Your task to perform on an android device: install app "Cash App" Image 0: 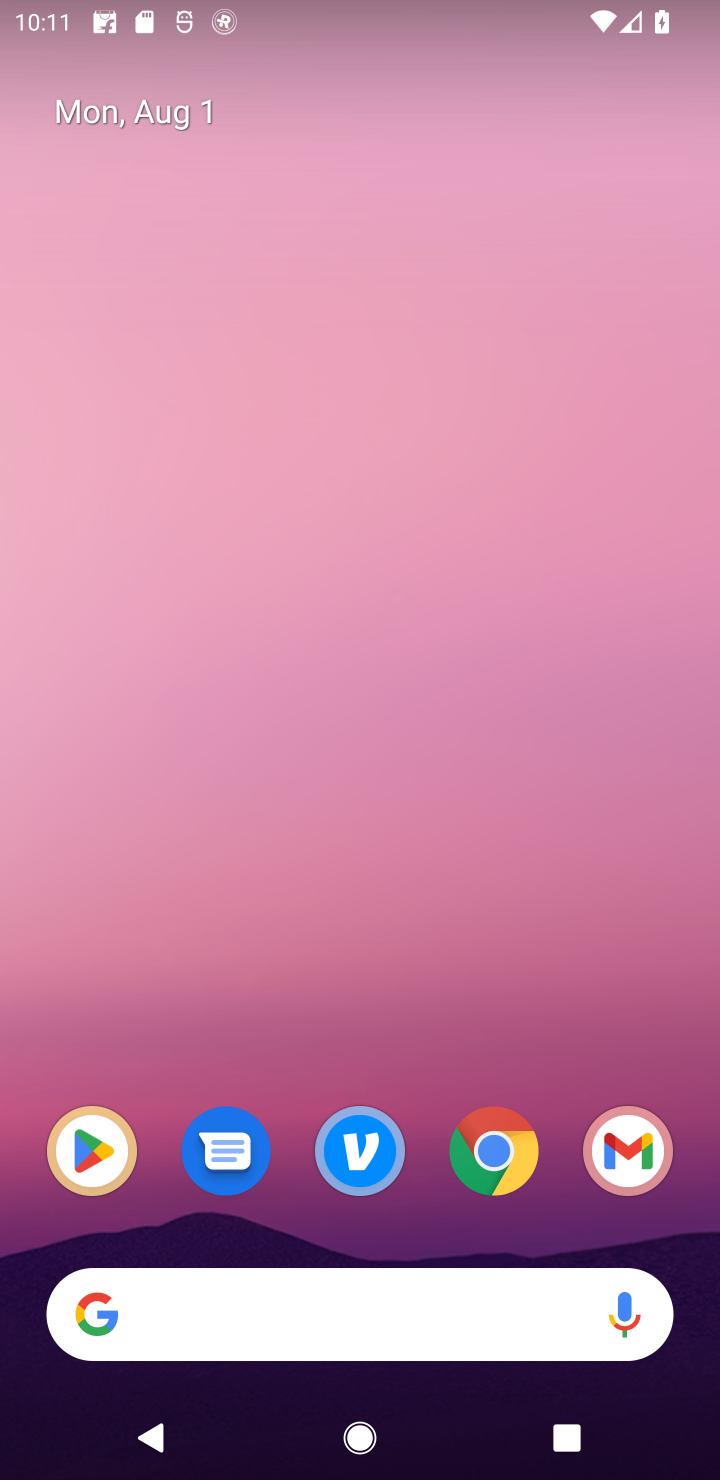
Step 0: click (96, 1141)
Your task to perform on an android device: install app "Cash App" Image 1: 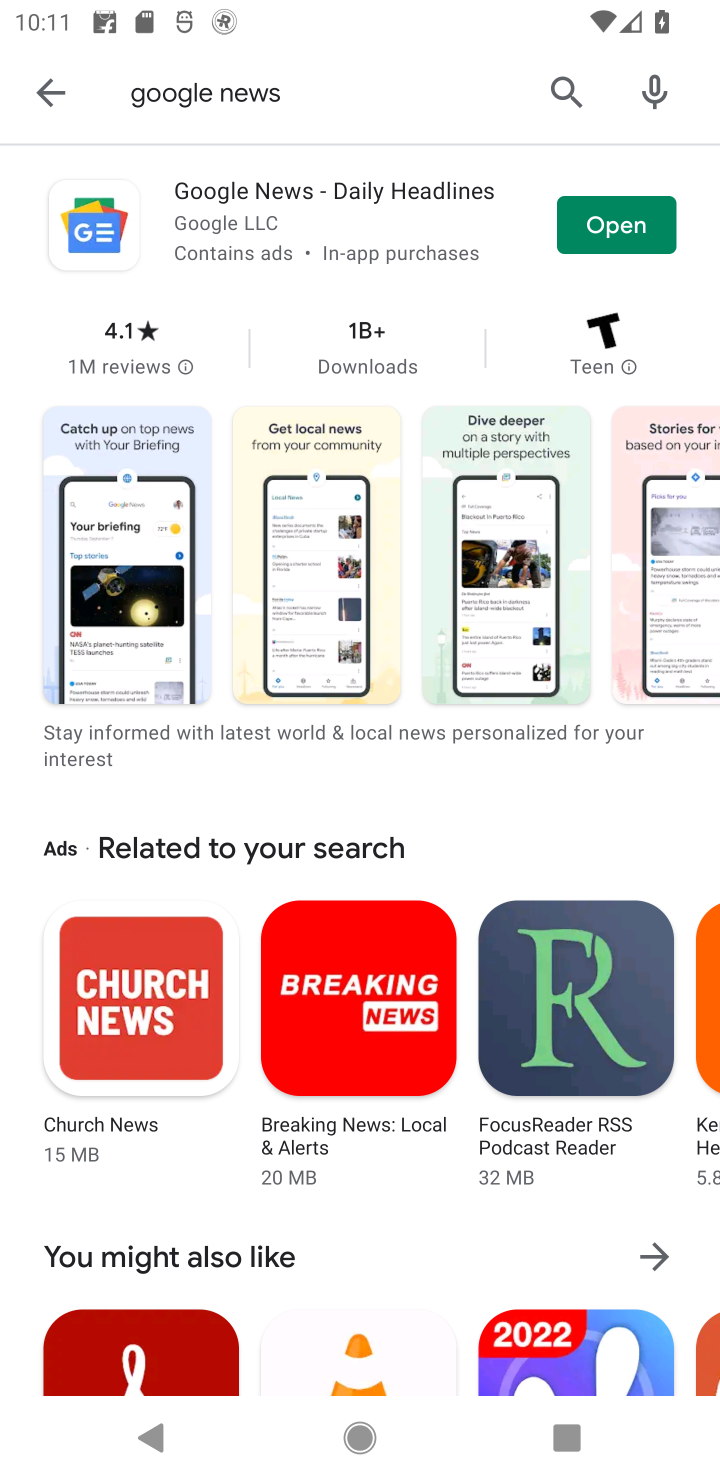
Step 1: click (549, 84)
Your task to perform on an android device: install app "Cash App" Image 2: 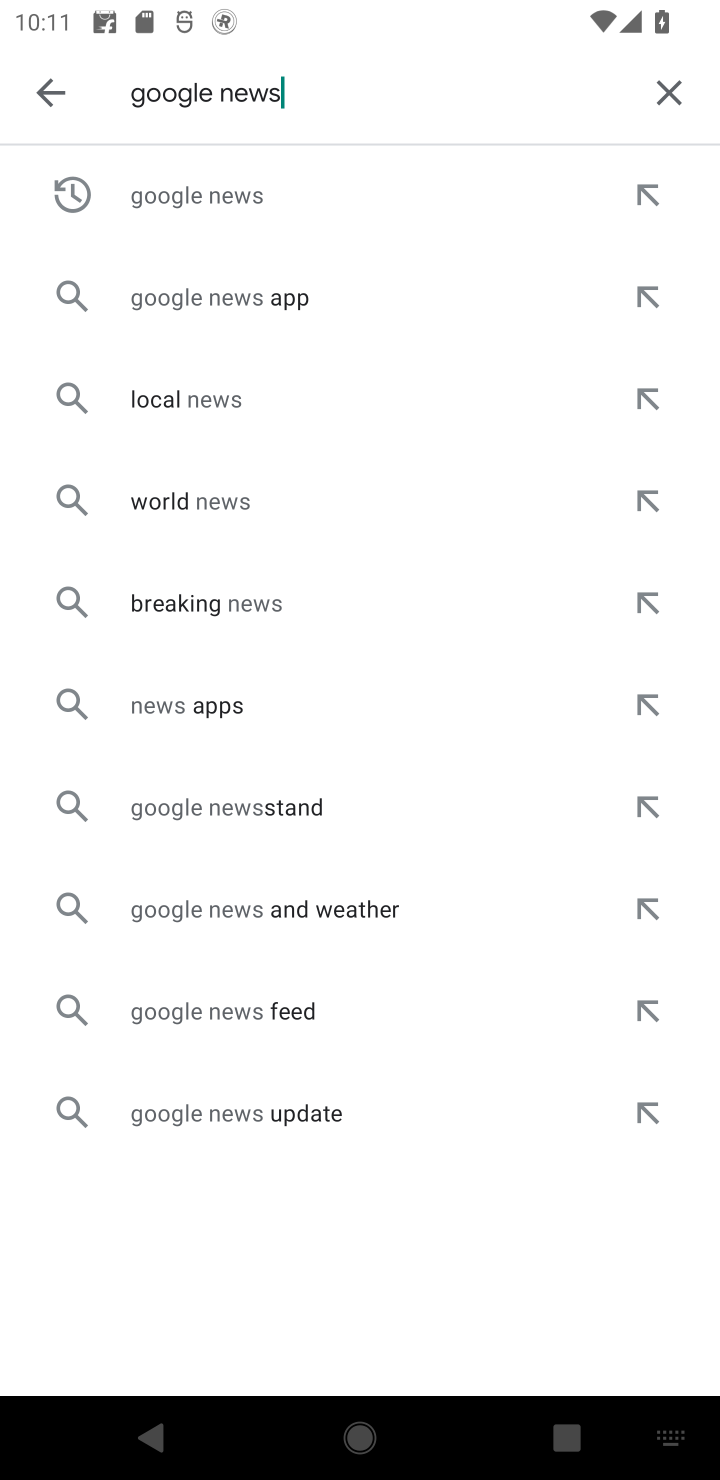
Step 2: click (666, 98)
Your task to perform on an android device: install app "Cash App" Image 3: 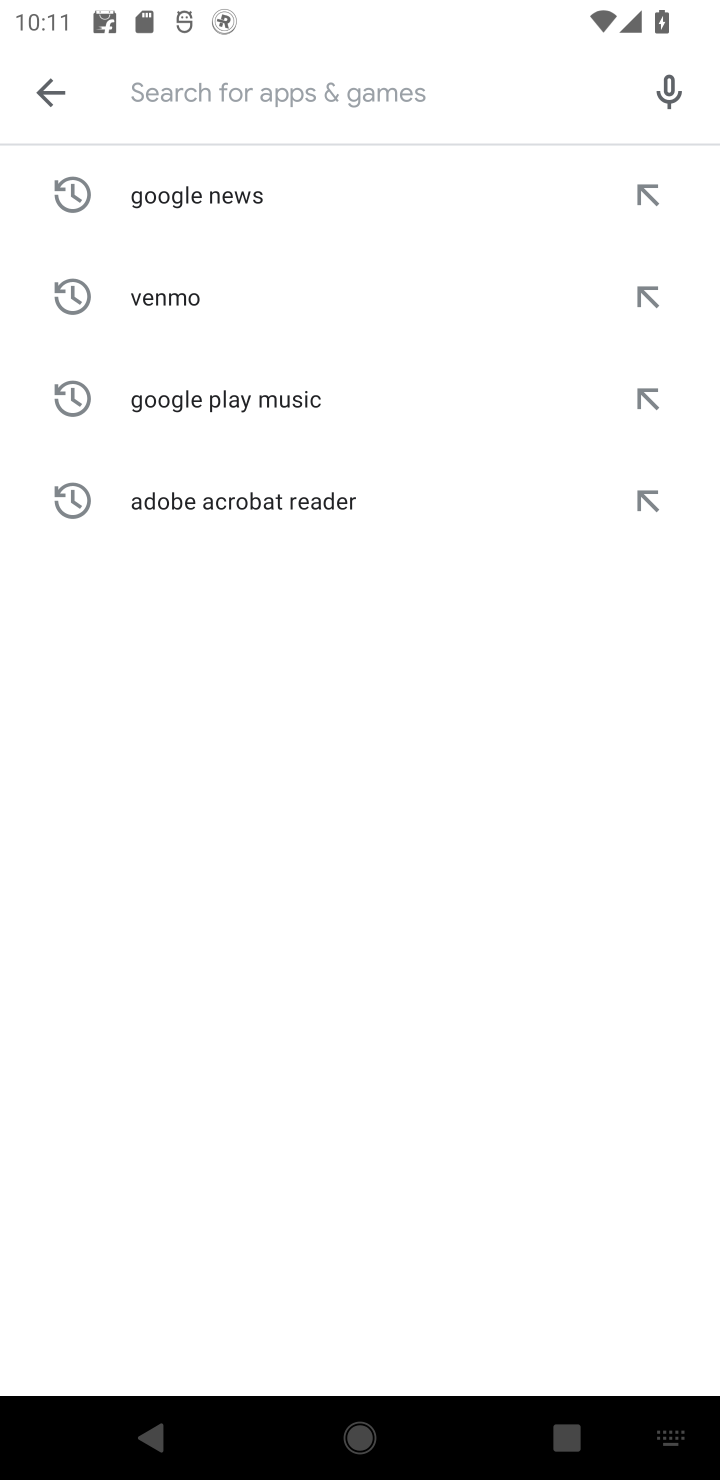
Step 3: type "Cash App"
Your task to perform on an android device: install app "Cash App" Image 4: 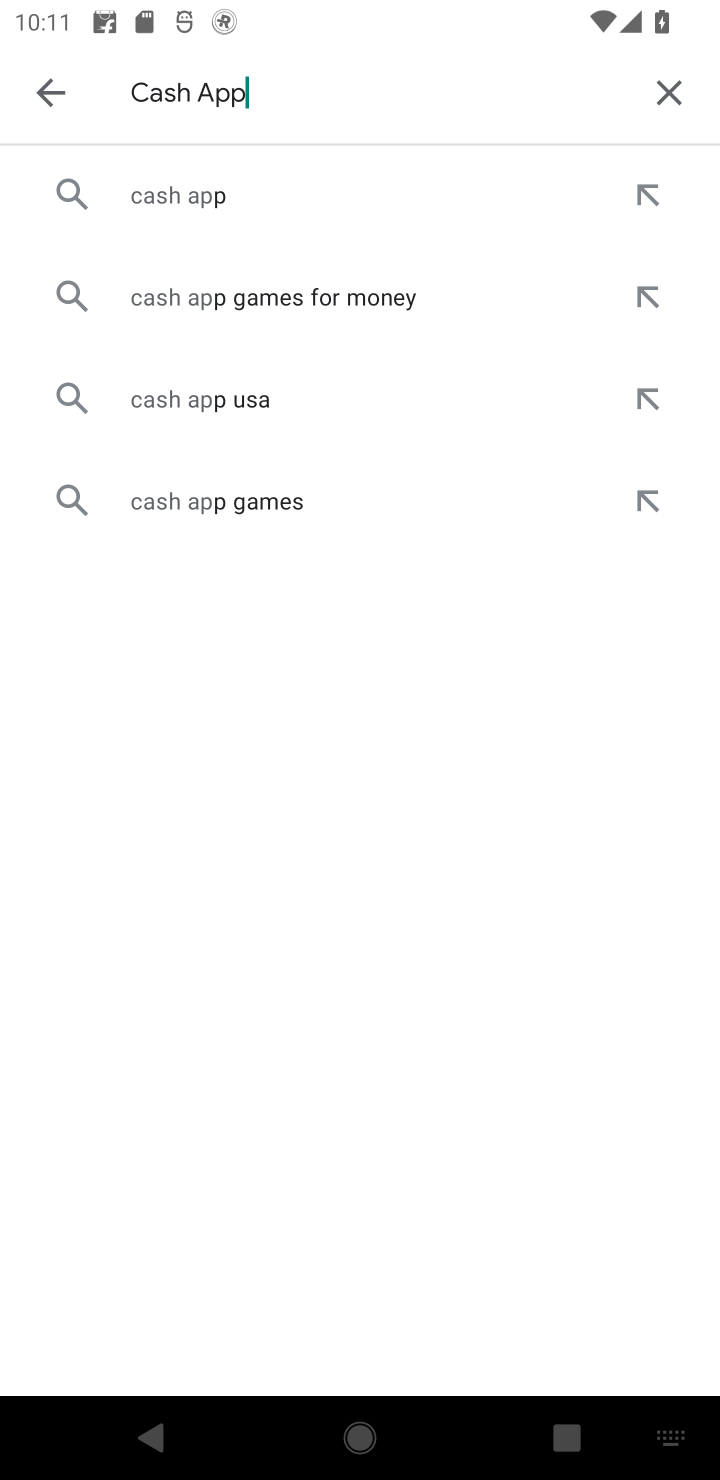
Step 4: type ""
Your task to perform on an android device: install app "Cash App" Image 5: 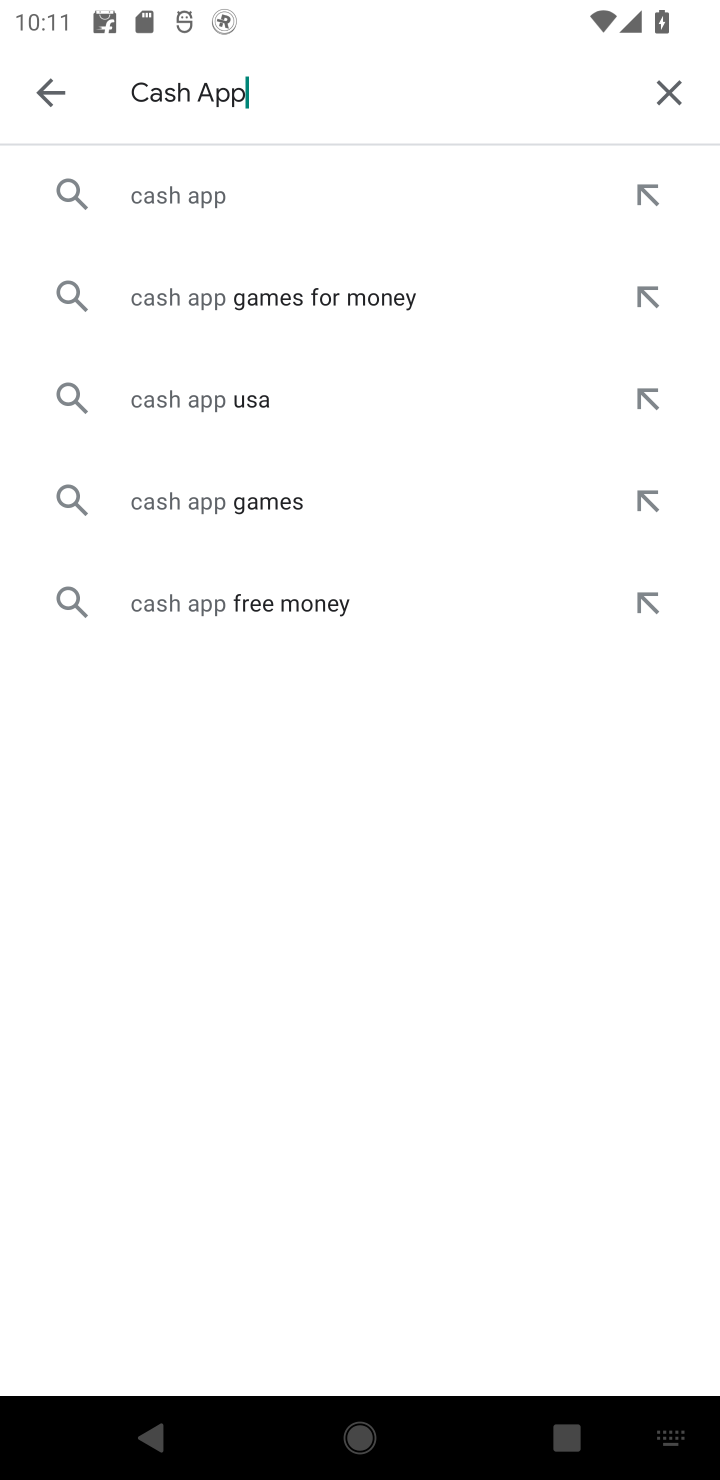
Step 5: click (212, 193)
Your task to perform on an android device: install app "Cash App" Image 6: 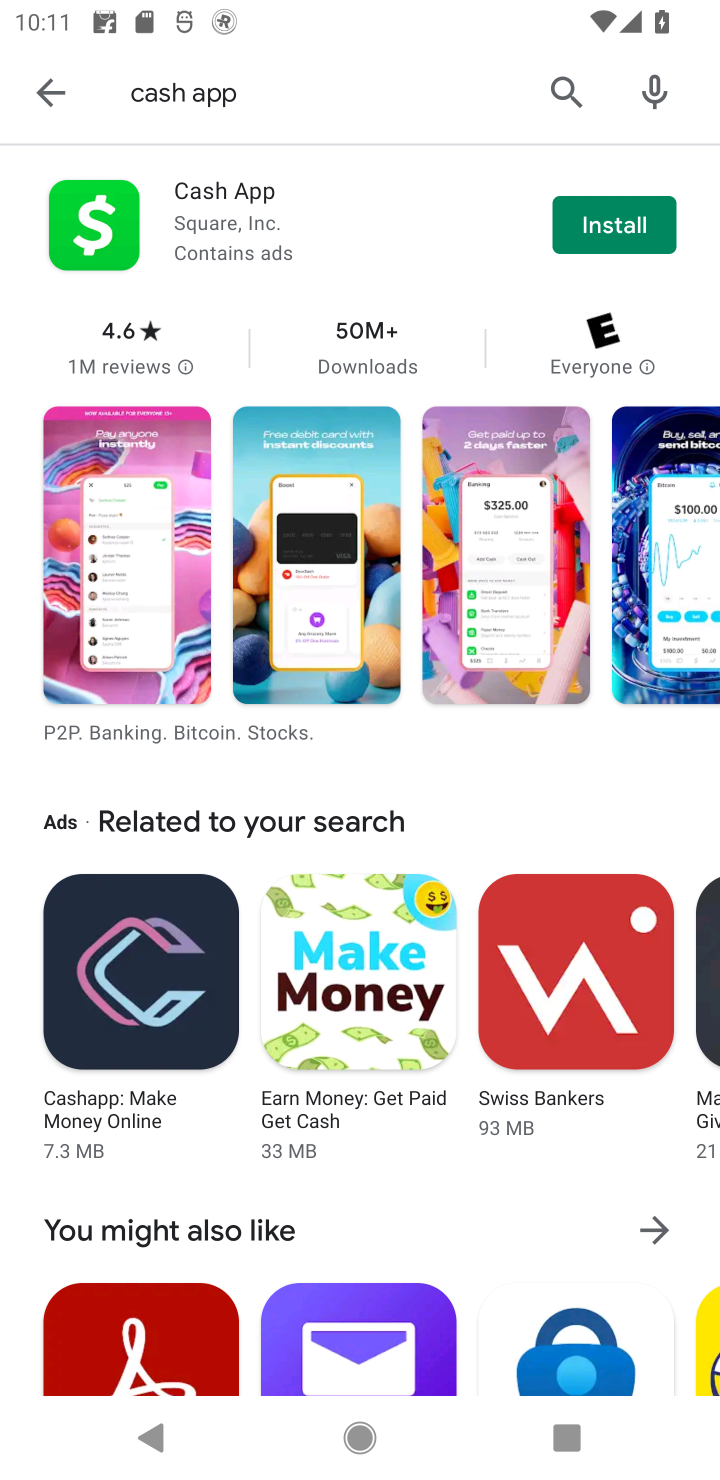
Step 6: click (548, 216)
Your task to perform on an android device: install app "Cash App" Image 7: 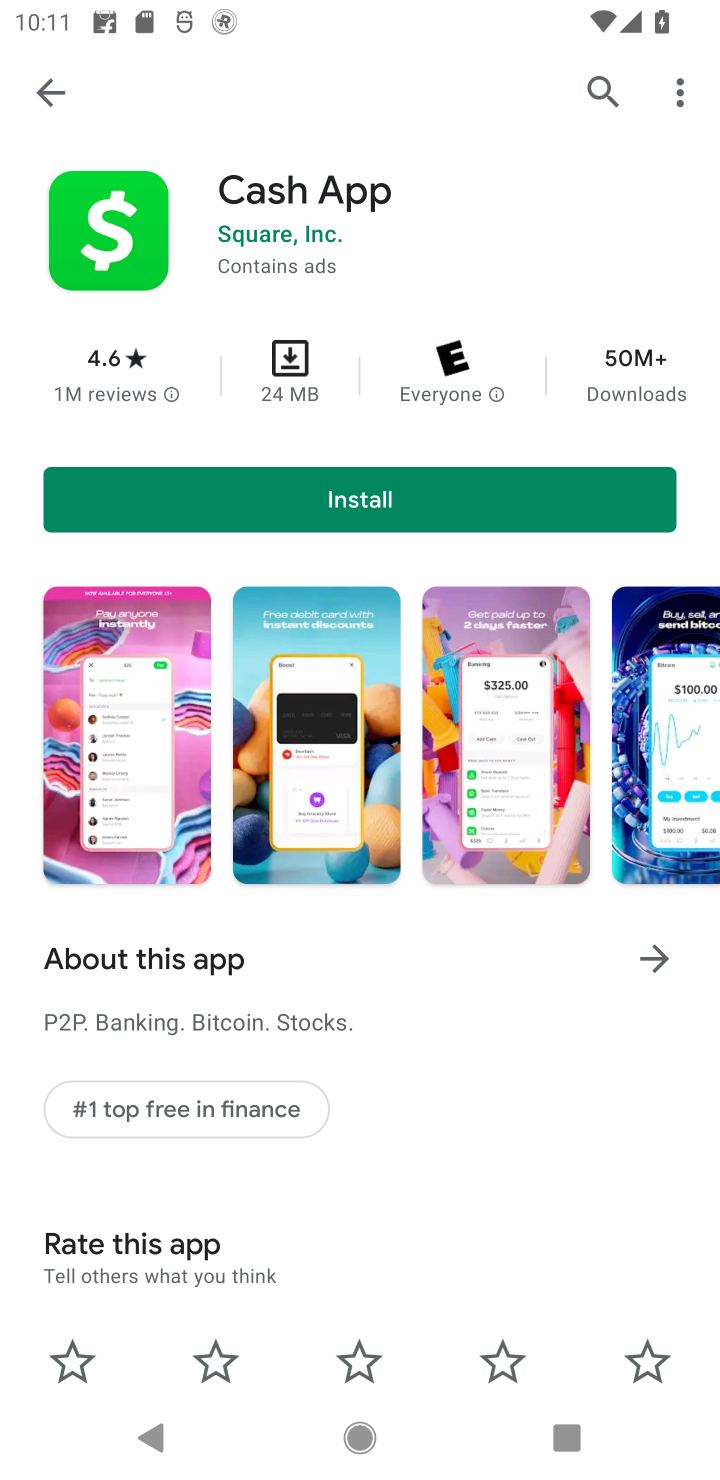
Step 7: click (415, 512)
Your task to perform on an android device: install app "Cash App" Image 8: 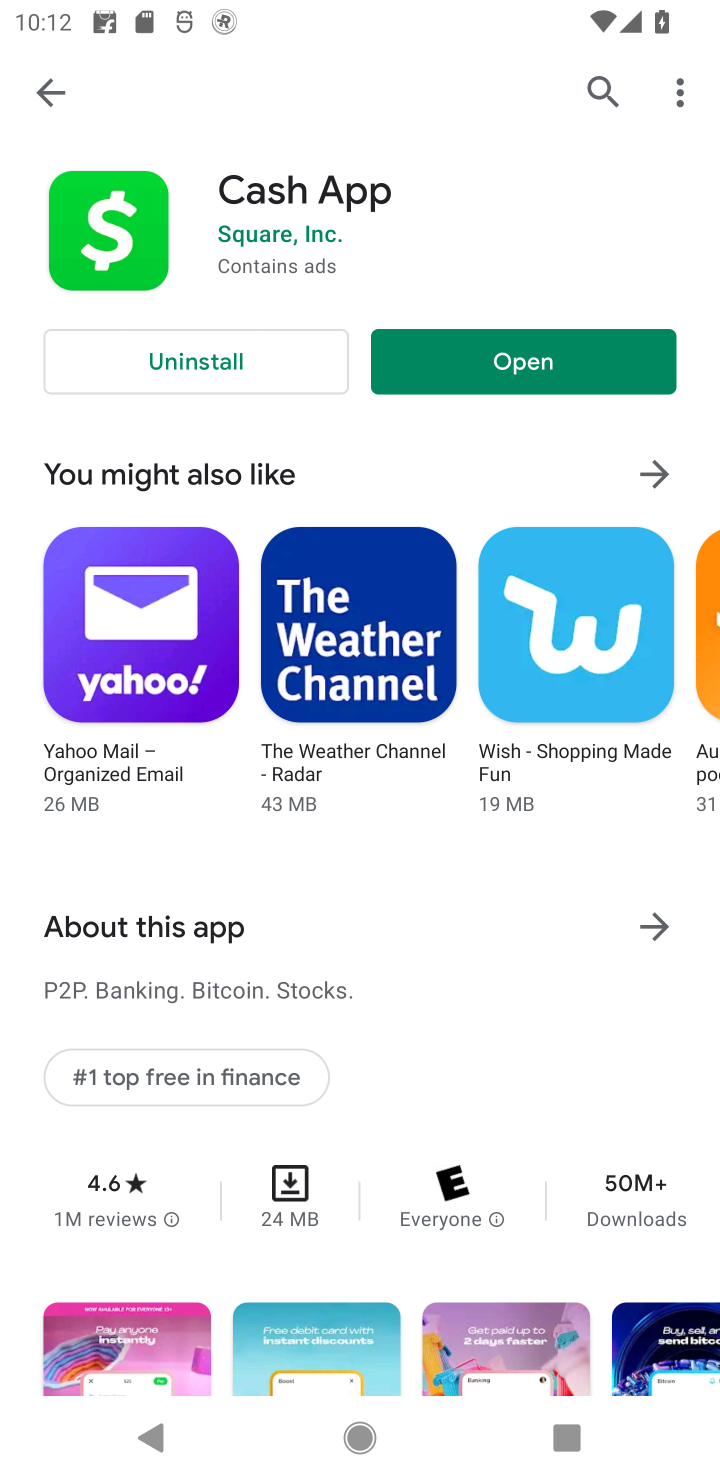
Step 8: task complete